Your task to perform on an android device: Check the weather Image 0: 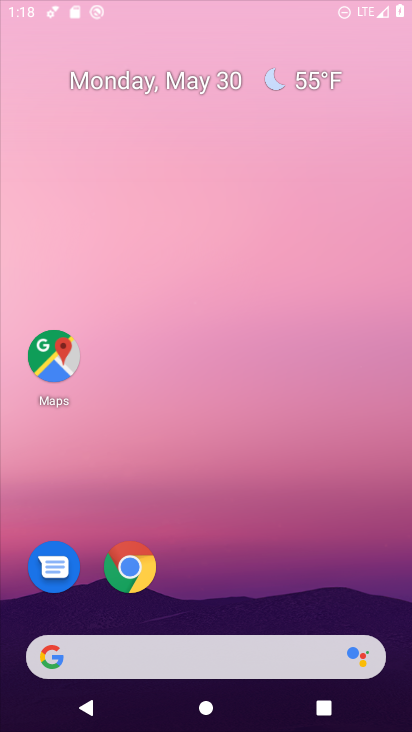
Step 0: press home button
Your task to perform on an android device: Check the weather Image 1: 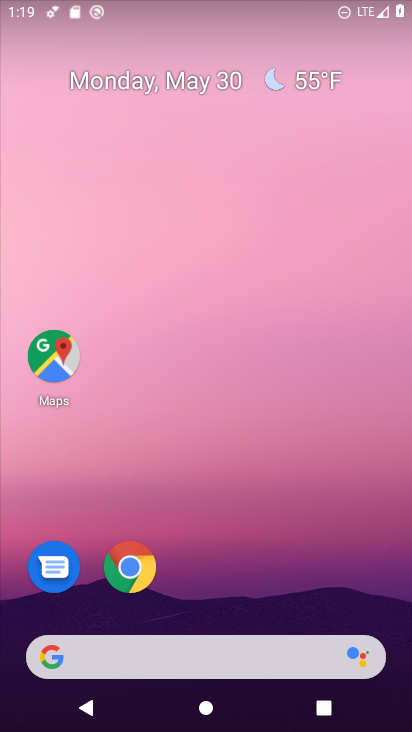
Step 1: click (315, 78)
Your task to perform on an android device: Check the weather Image 2: 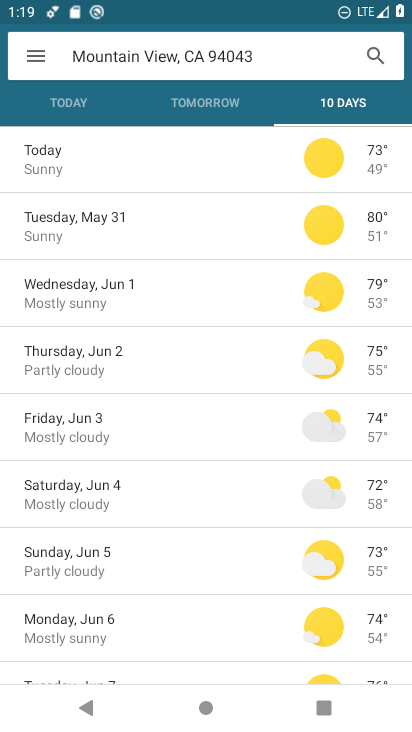
Step 2: press back button
Your task to perform on an android device: Check the weather Image 3: 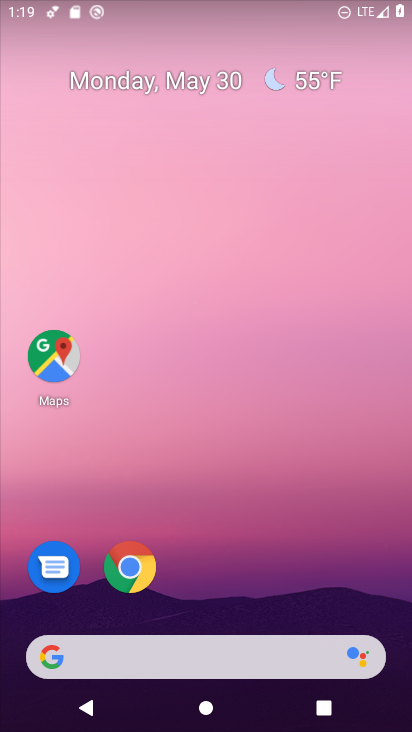
Step 3: click (316, 73)
Your task to perform on an android device: Check the weather Image 4: 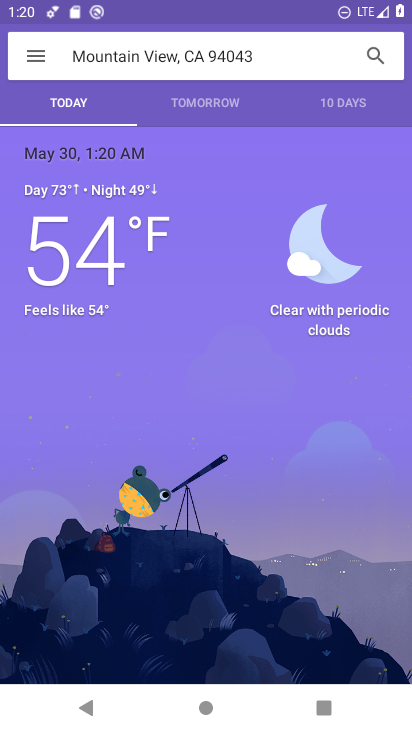
Step 4: drag from (225, 549) to (266, 126)
Your task to perform on an android device: Check the weather Image 5: 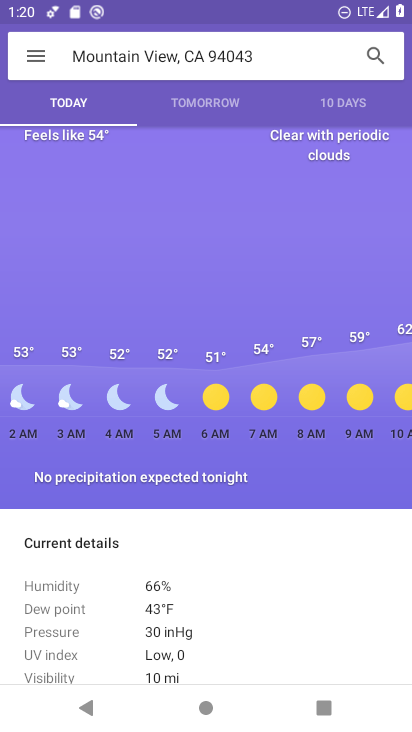
Step 5: click (361, 399)
Your task to perform on an android device: Check the weather Image 6: 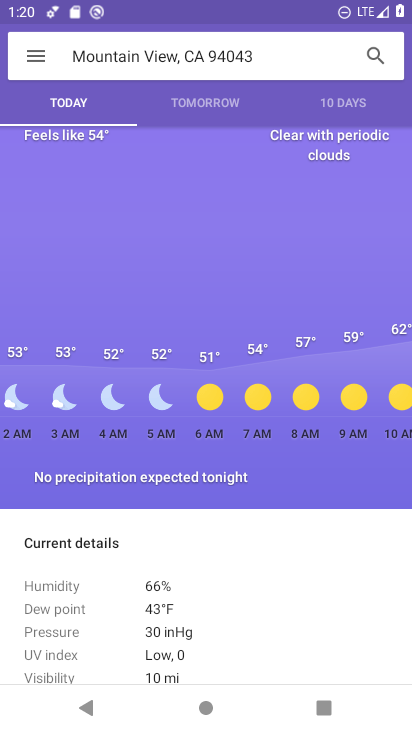
Step 6: task complete